Your task to perform on an android device: Search for "razer naga" on target.com, select the first entry, add it to the cart, then select checkout. Image 0: 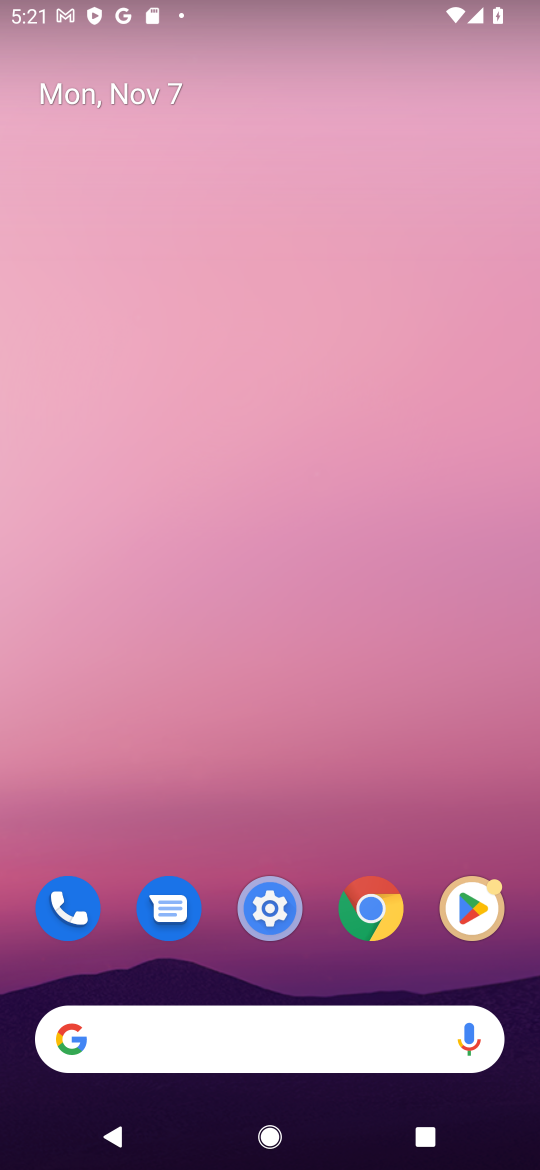
Step 0: click (281, 1056)
Your task to perform on an android device: Search for "razer naga" on target.com, select the first entry, add it to the cart, then select checkout. Image 1: 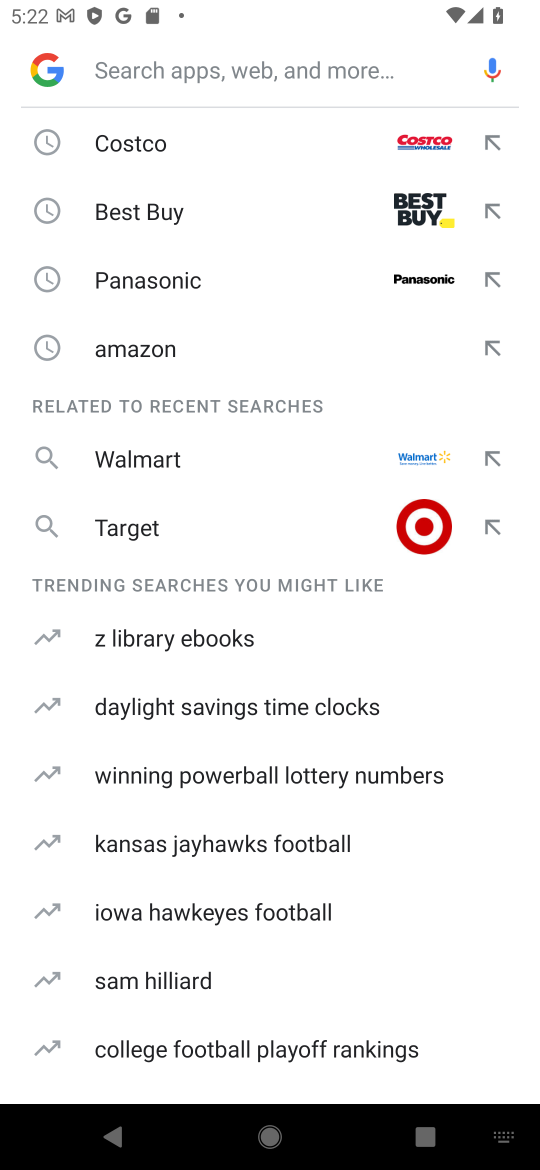
Step 1: click (153, 514)
Your task to perform on an android device: Search for "razer naga" on target.com, select the first entry, add it to the cart, then select checkout. Image 2: 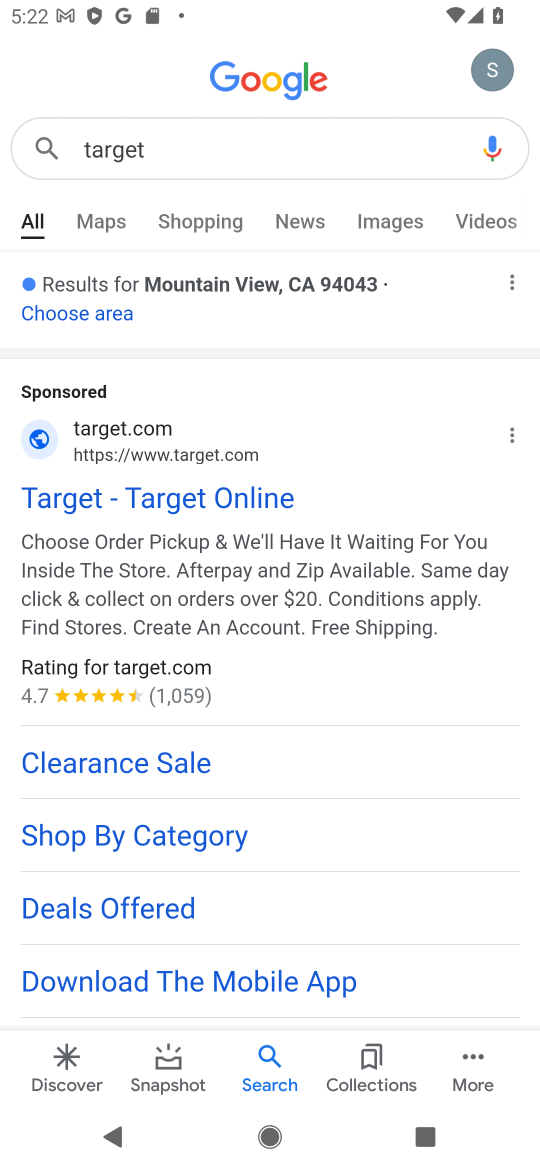
Step 2: click (142, 504)
Your task to perform on an android device: Search for "razer naga" on target.com, select the first entry, add it to the cart, then select checkout. Image 3: 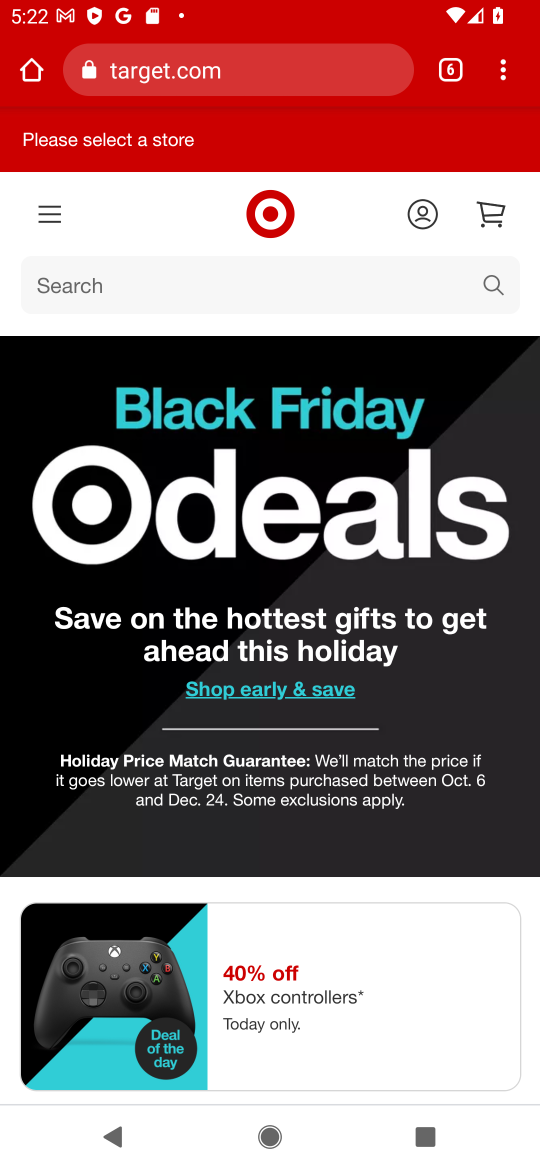
Step 3: click (167, 260)
Your task to perform on an android device: Search for "razer naga" on target.com, select the first entry, add it to the cart, then select checkout. Image 4: 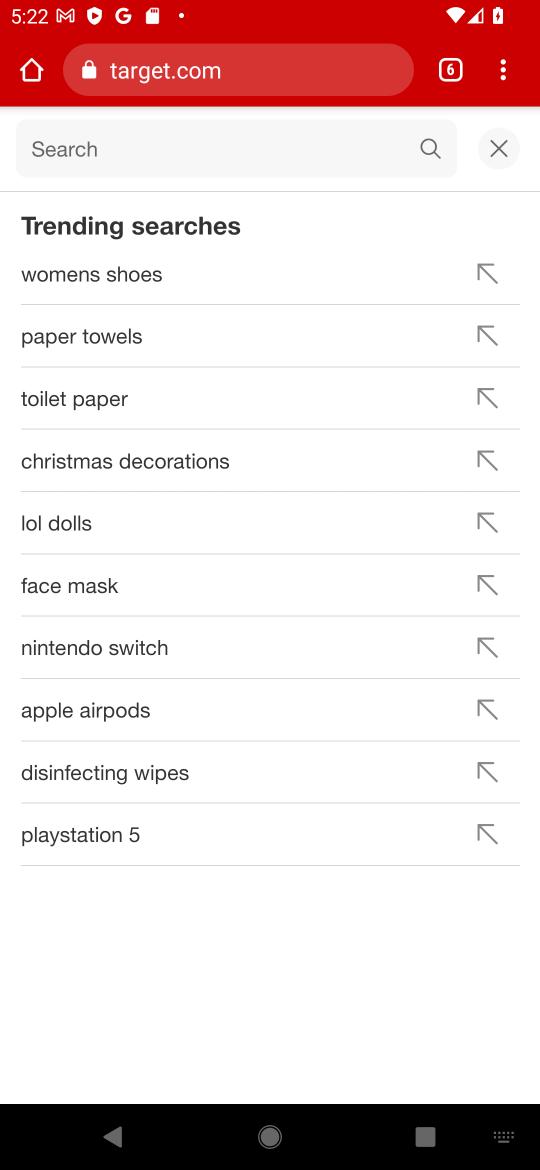
Step 4: type "razer naga"
Your task to perform on an android device: Search for "razer naga" on target.com, select the first entry, add it to the cart, then select checkout. Image 5: 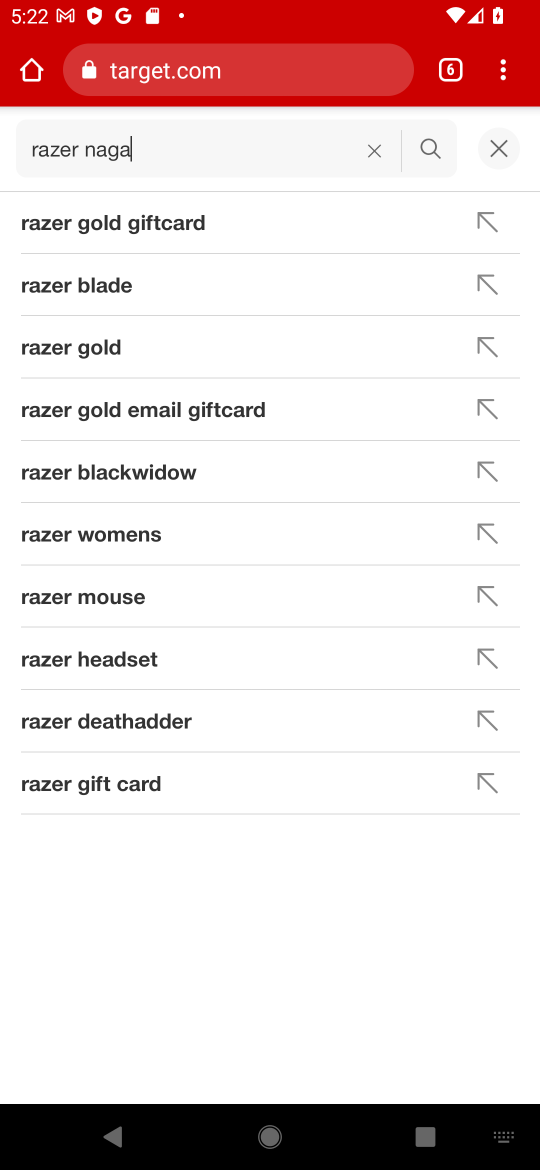
Step 5: click (52, 287)
Your task to perform on an android device: Search for "razer naga" on target.com, select the first entry, add it to the cart, then select checkout. Image 6: 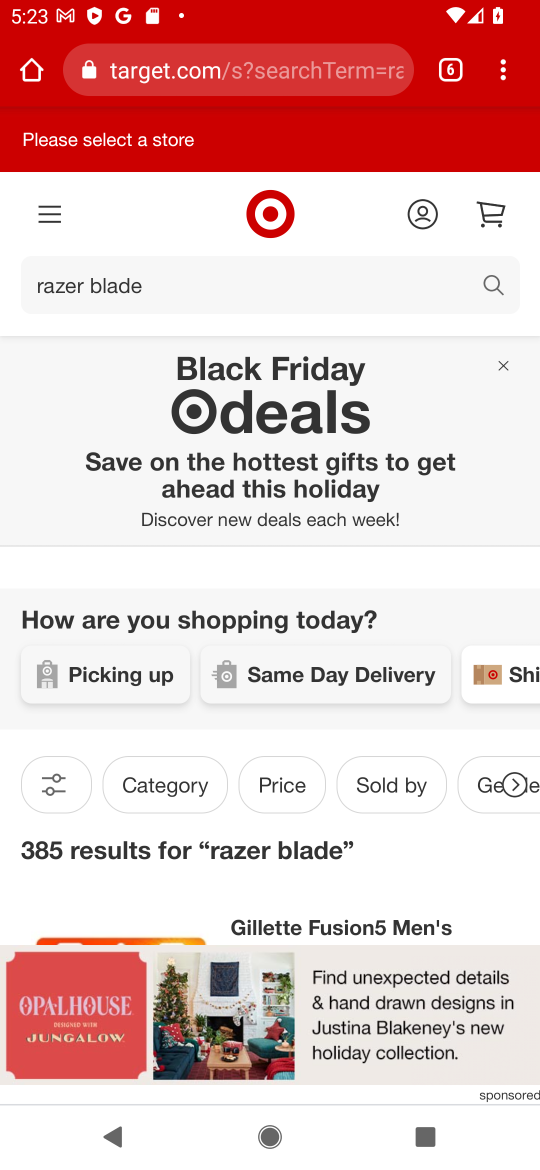
Step 6: task complete